Your task to perform on an android device: Go to Yahoo.com Image 0: 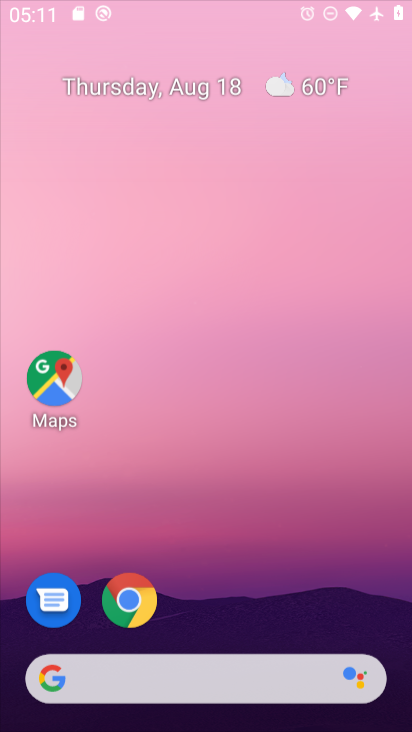
Step 0: press home button
Your task to perform on an android device: Go to Yahoo.com Image 1: 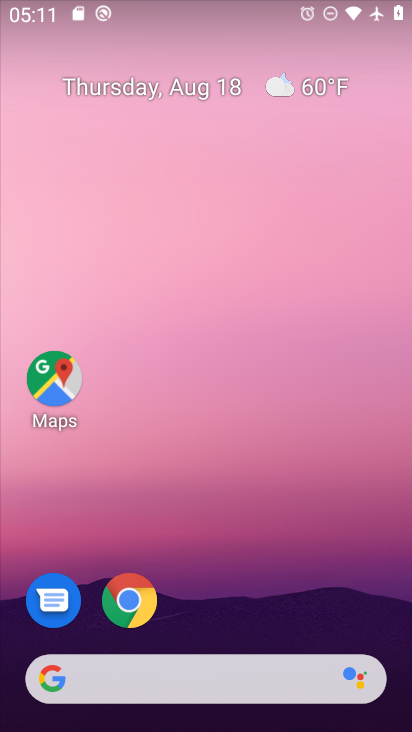
Step 1: click (56, 682)
Your task to perform on an android device: Go to Yahoo.com Image 2: 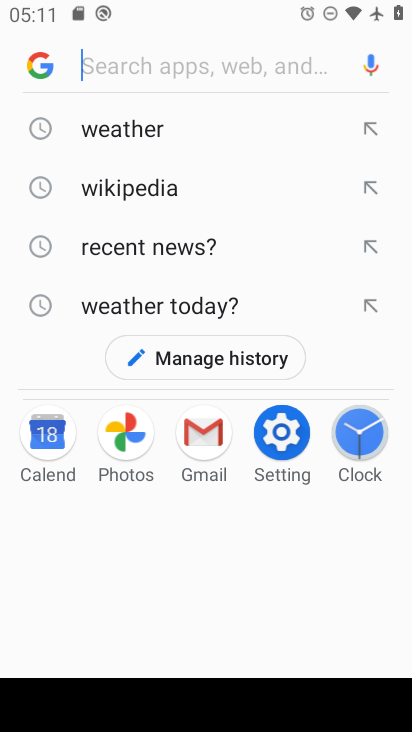
Step 2: type "Yahoo.com"
Your task to perform on an android device: Go to Yahoo.com Image 3: 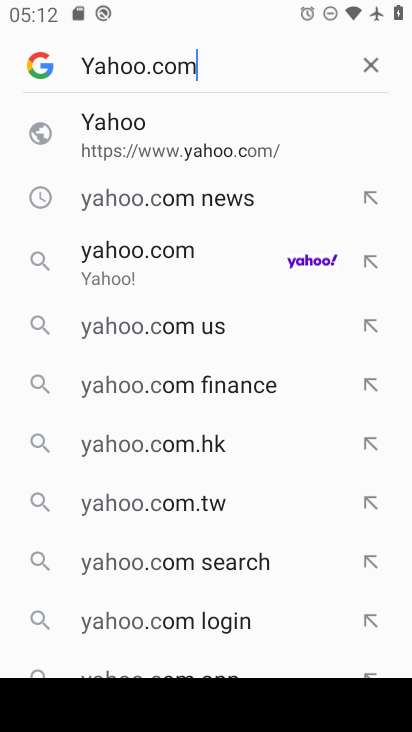
Step 3: press enter
Your task to perform on an android device: Go to Yahoo.com Image 4: 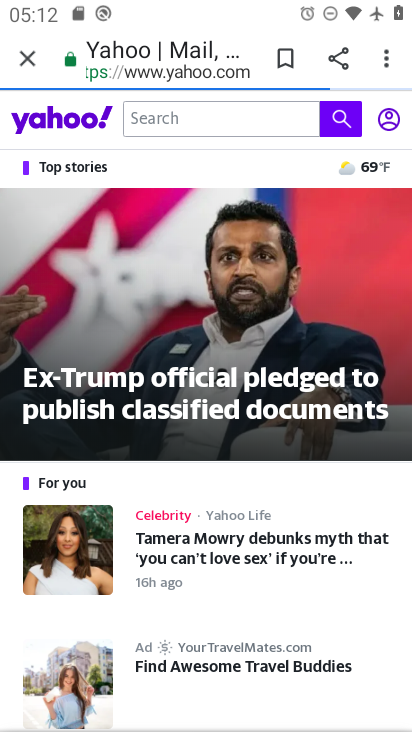
Step 4: task complete